Your task to perform on an android device: delete browsing data in the chrome app Image 0: 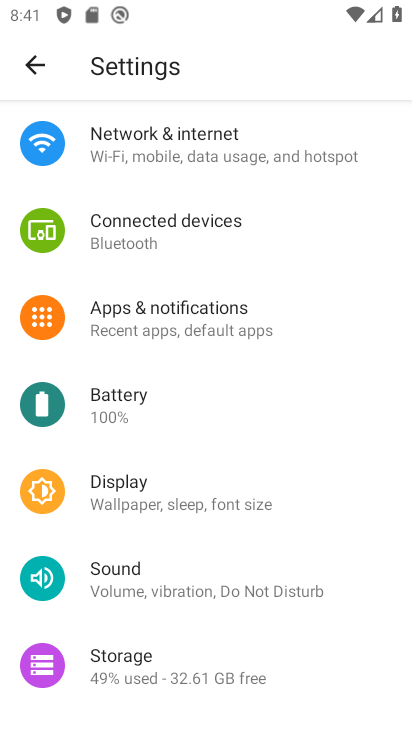
Step 0: press back button
Your task to perform on an android device: delete browsing data in the chrome app Image 1: 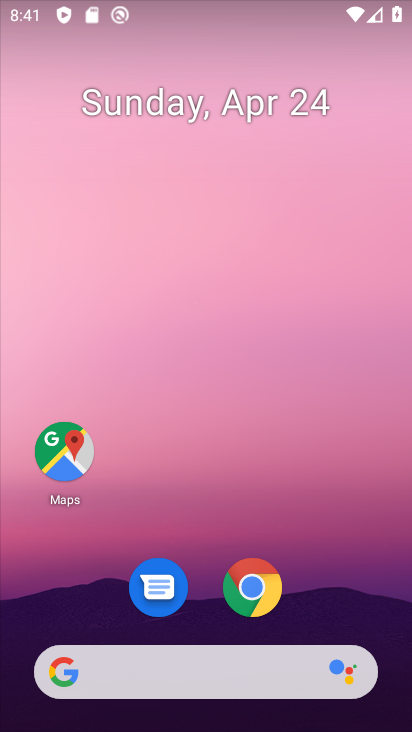
Step 1: click (259, 577)
Your task to perform on an android device: delete browsing data in the chrome app Image 2: 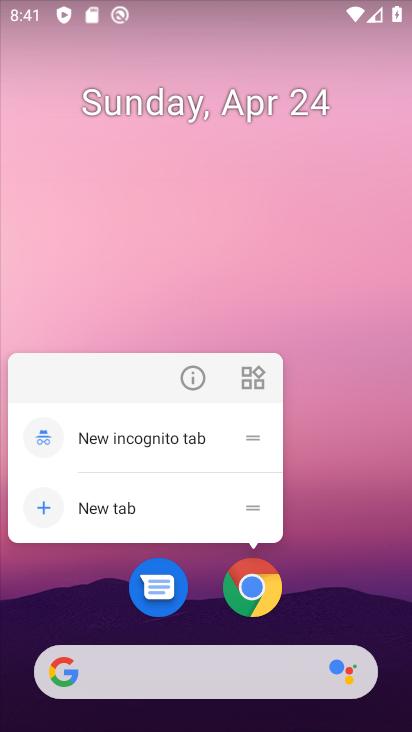
Step 2: click (258, 595)
Your task to perform on an android device: delete browsing data in the chrome app Image 3: 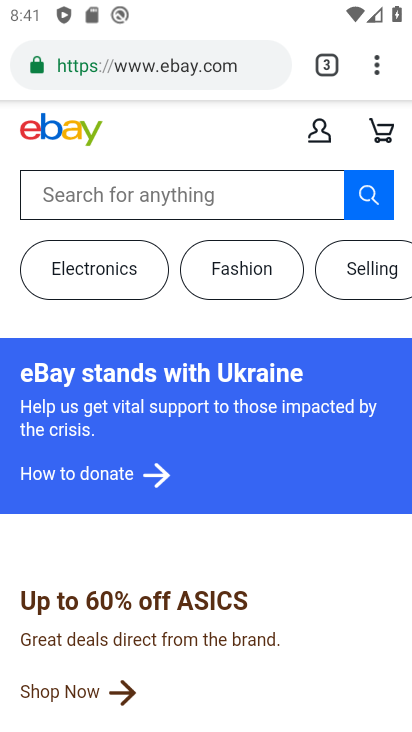
Step 3: drag from (377, 68) to (178, 440)
Your task to perform on an android device: delete browsing data in the chrome app Image 4: 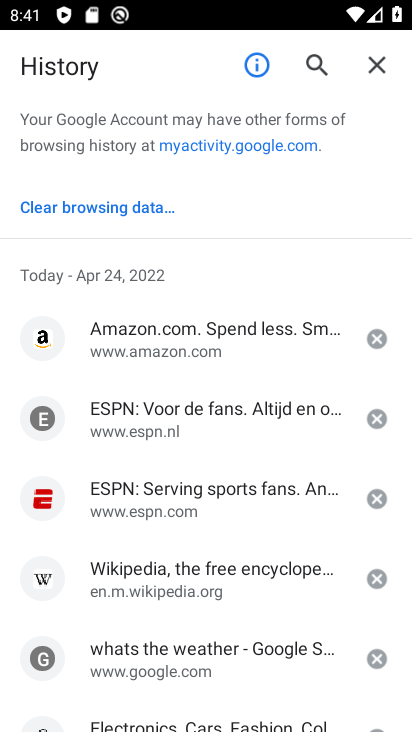
Step 4: click (66, 201)
Your task to perform on an android device: delete browsing data in the chrome app Image 5: 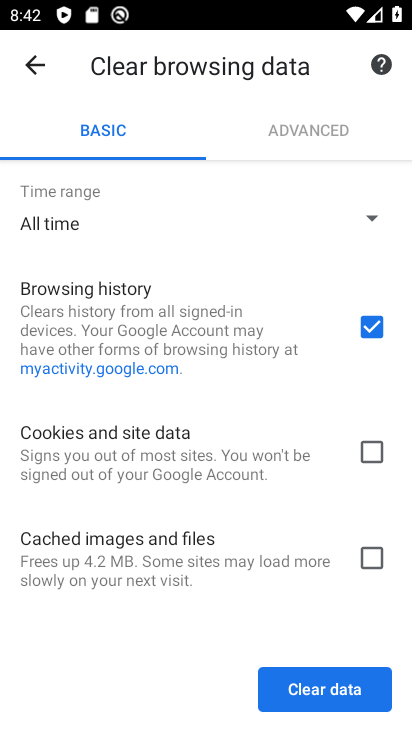
Step 5: click (312, 690)
Your task to perform on an android device: delete browsing data in the chrome app Image 6: 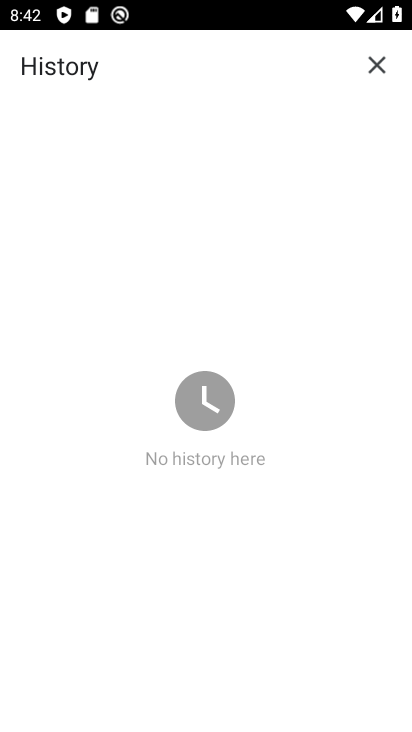
Step 6: task complete